Your task to perform on an android device: Check the weather Image 0: 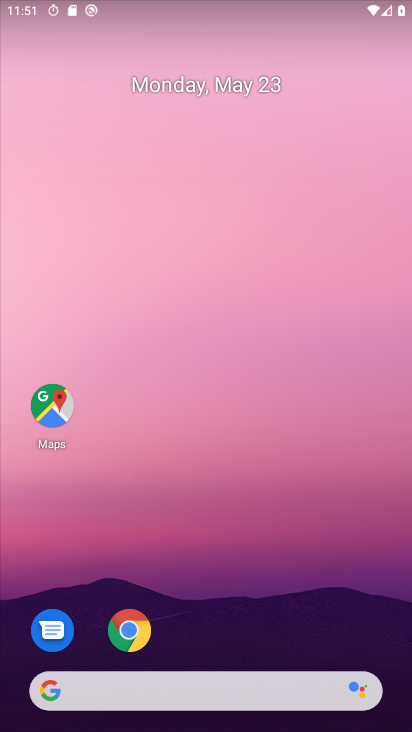
Step 0: drag from (175, 551) to (233, 7)
Your task to perform on an android device: Check the weather Image 1: 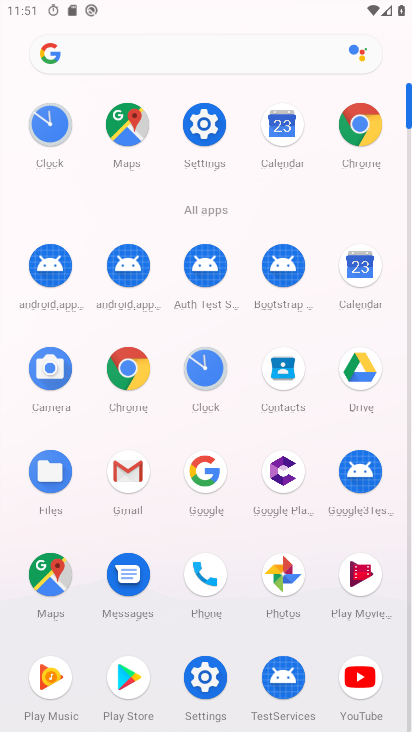
Step 1: click (133, 53)
Your task to perform on an android device: Check the weather Image 2: 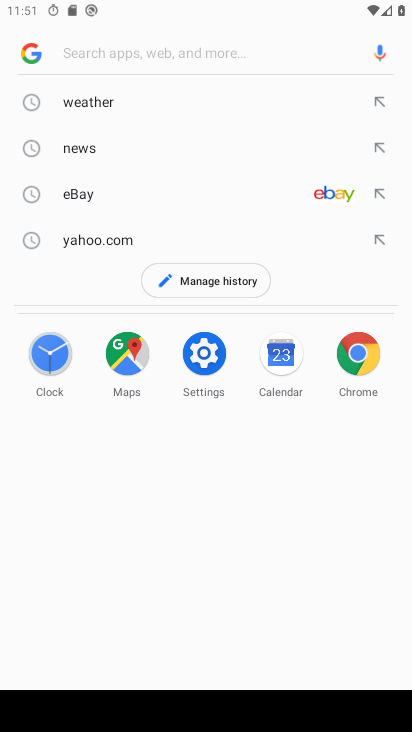
Step 2: click (110, 104)
Your task to perform on an android device: Check the weather Image 3: 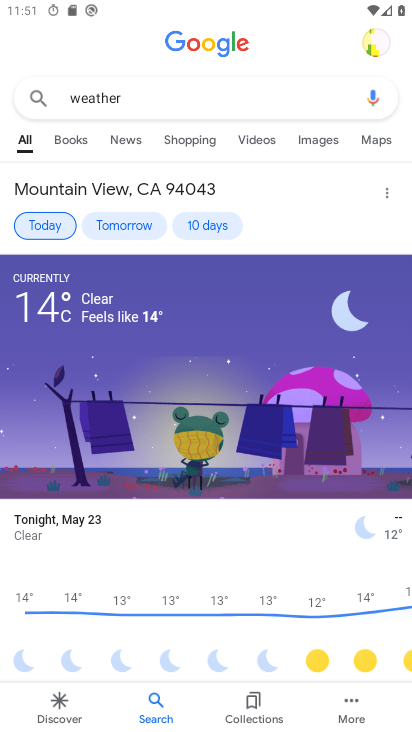
Step 3: task complete